Your task to perform on an android device: Go to display settings Image 0: 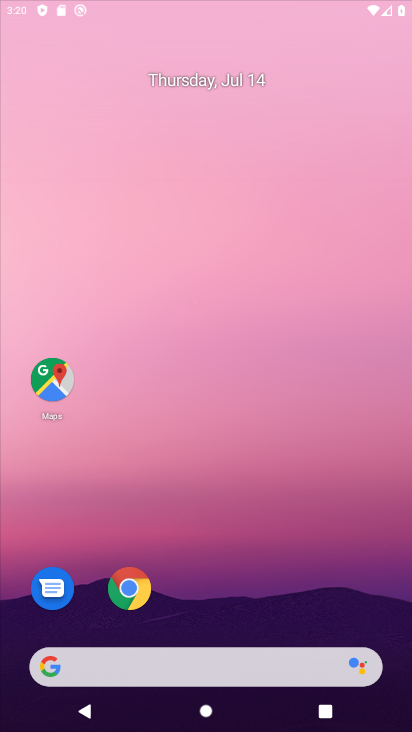
Step 0: drag from (262, 630) to (24, 188)
Your task to perform on an android device: Go to display settings Image 1: 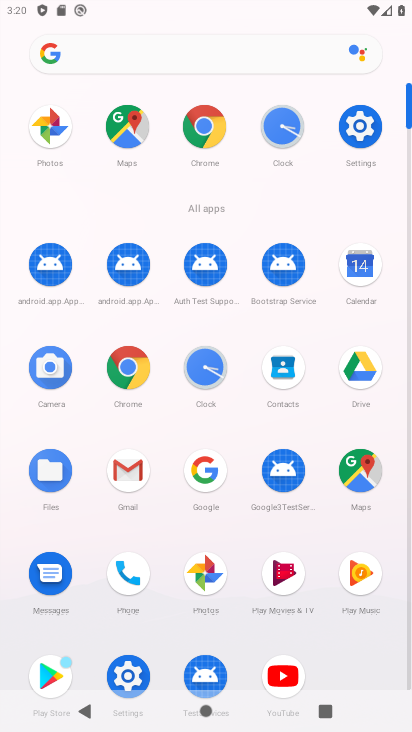
Step 1: click (365, 131)
Your task to perform on an android device: Go to display settings Image 2: 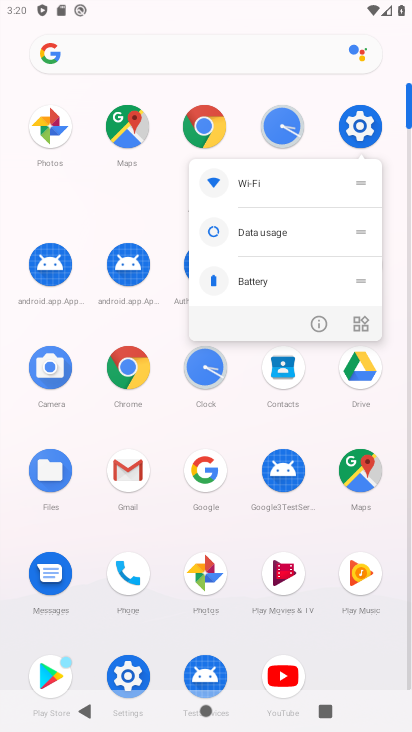
Step 2: click (364, 127)
Your task to perform on an android device: Go to display settings Image 3: 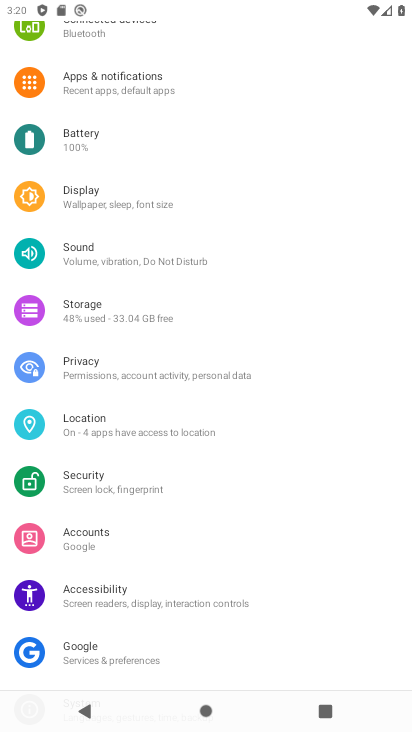
Step 3: click (100, 202)
Your task to perform on an android device: Go to display settings Image 4: 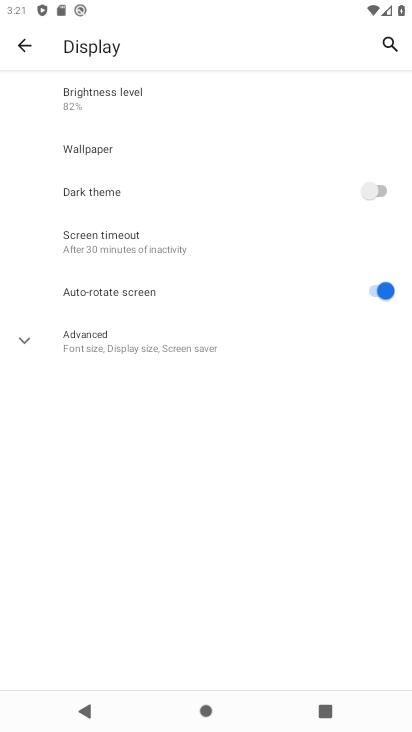
Step 4: task complete